Your task to perform on an android device: open a bookmark in the chrome app Image 0: 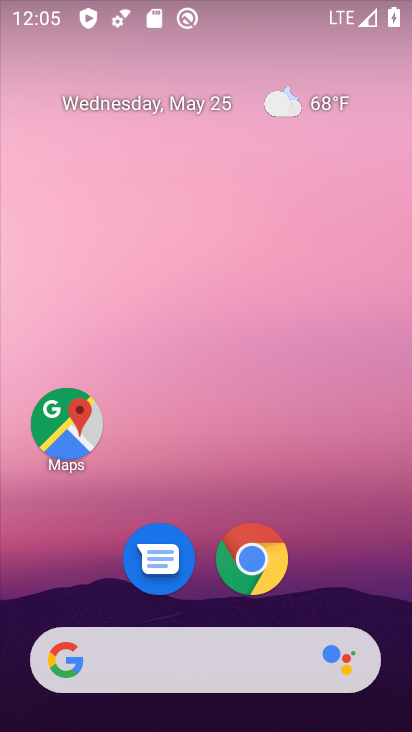
Step 0: click (255, 558)
Your task to perform on an android device: open a bookmark in the chrome app Image 1: 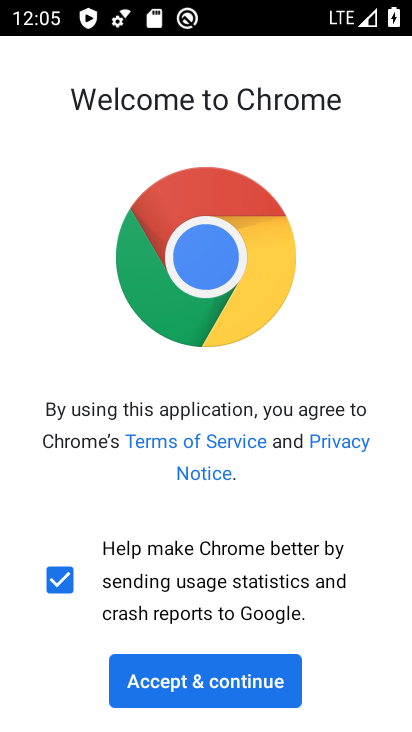
Step 1: click (198, 682)
Your task to perform on an android device: open a bookmark in the chrome app Image 2: 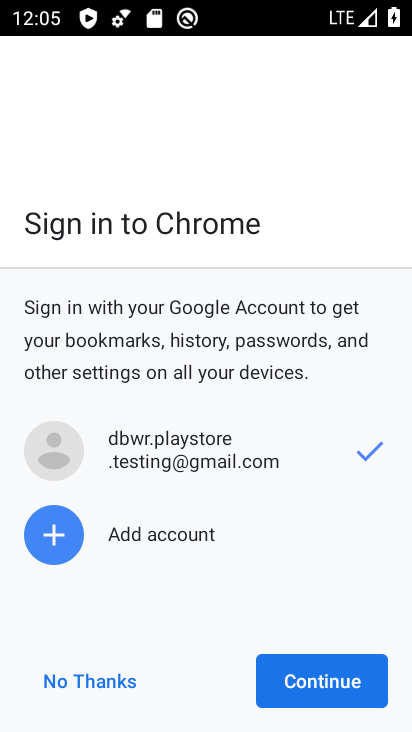
Step 2: click (313, 679)
Your task to perform on an android device: open a bookmark in the chrome app Image 3: 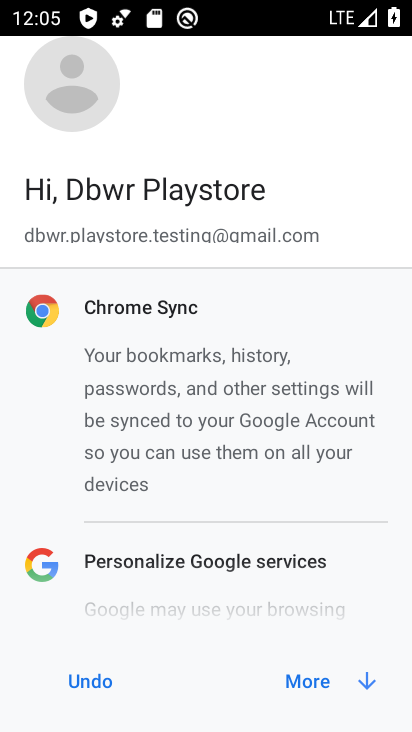
Step 3: click (313, 677)
Your task to perform on an android device: open a bookmark in the chrome app Image 4: 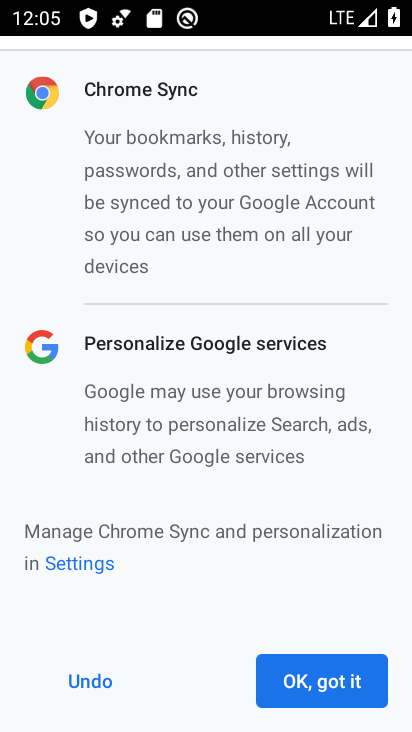
Step 4: click (313, 677)
Your task to perform on an android device: open a bookmark in the chrome app Image 5: 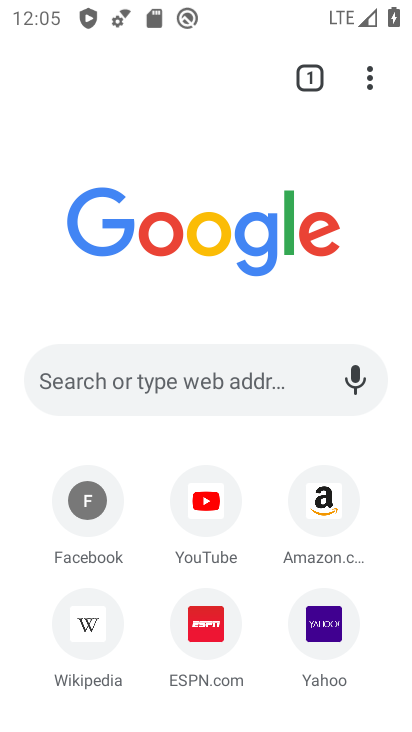
Step 5: click (369, 82)
Your task to perform on an android device: open a bookmark in the chrome app Image 6: 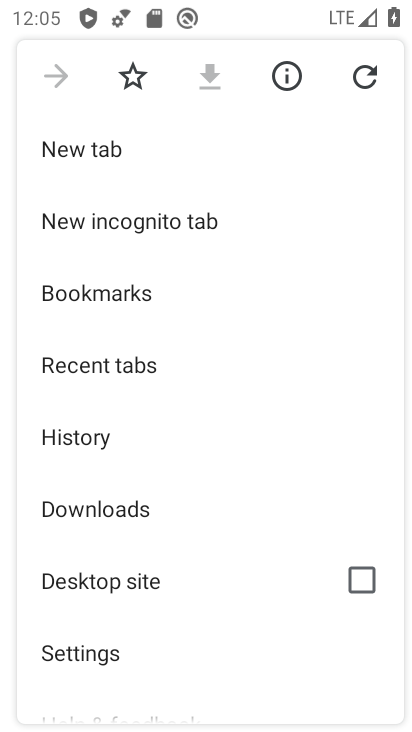
Step 6: click (79, 293)
Your task to perform on an android device: open a bookmark in the chrome app Image 7: 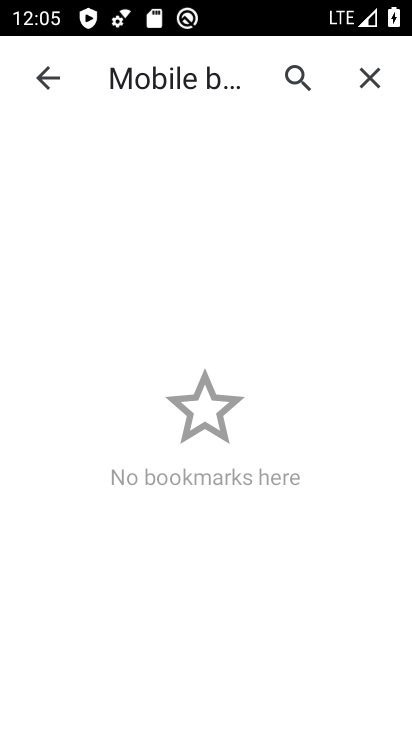
Step 7: task complete